Your task to perform on an android device: change the clock display to digital Image 0: 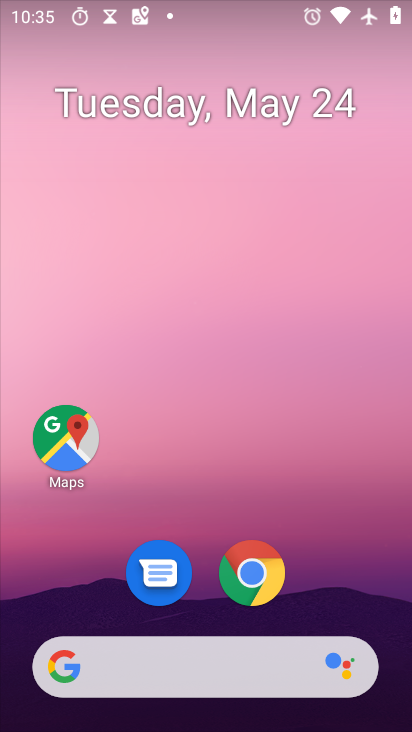
Step 0: drag from (347, 537) to (407, 35)
Your task to perform on an android device: change the clock display to digital Image 1: 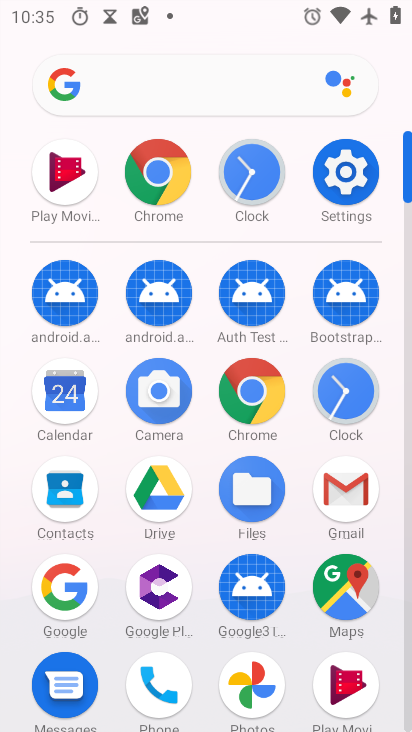
Step 1: click (352, 392)
Your task to perform on an android device: change the clock display to digital Image 2: 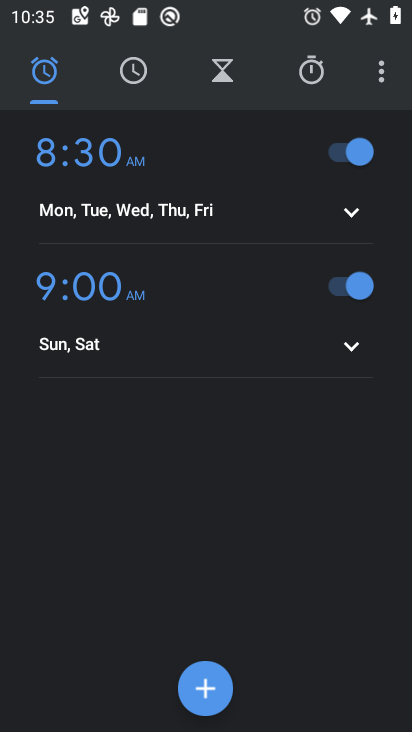
Step 2: click (374, 71)
Your task to perform on an android device: change the clock display to digital Image 3: 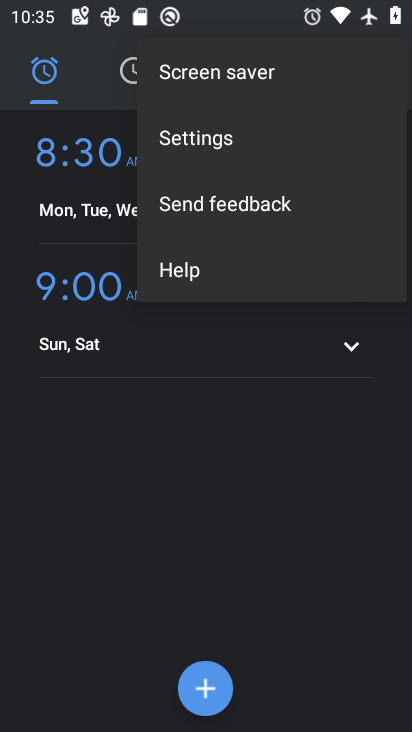
Step 3: click (157, 139)
Your task to perform on an android device: change the clock display to digital Image 4: 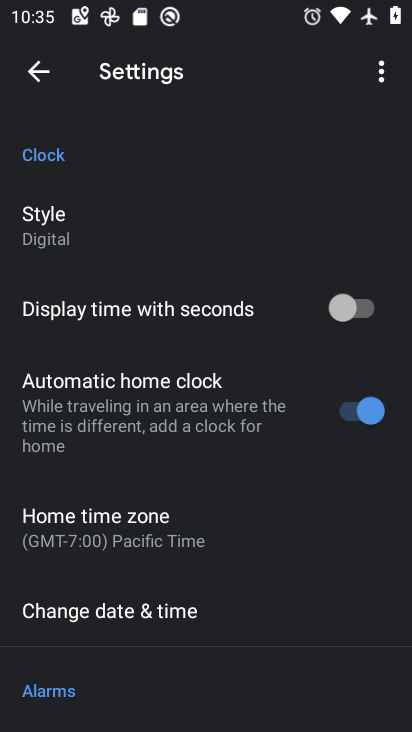
Step 4: task complete